Your task to perform on an android device: Search for "lg ultragear" on amazon.com, select the first entry, add it to the cart, then select checkout. Image 0: 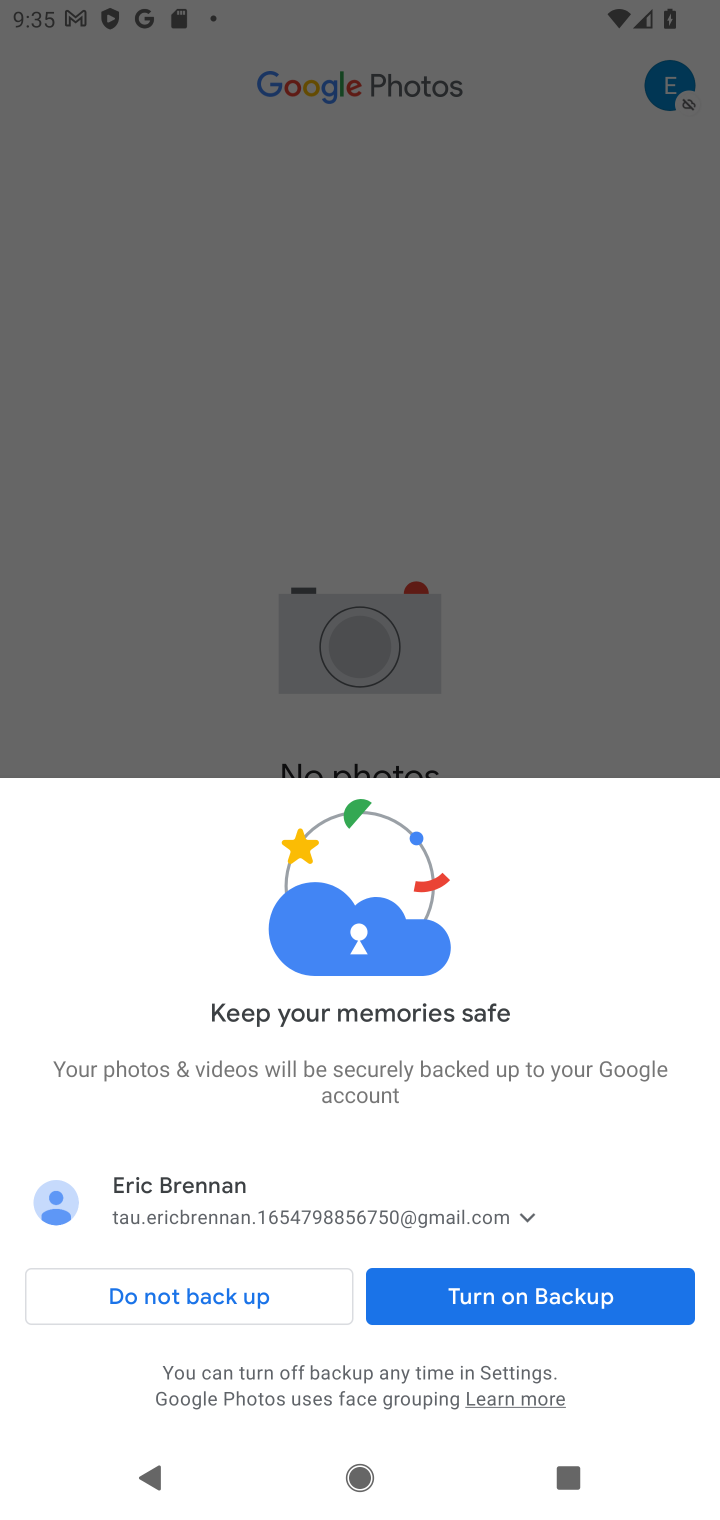
Step 0: press home button
Your task to perform on an android device: Search for "lg ultragear" on amazon.com, select the first entry, add it to the cart, then select checkout. Image 1: 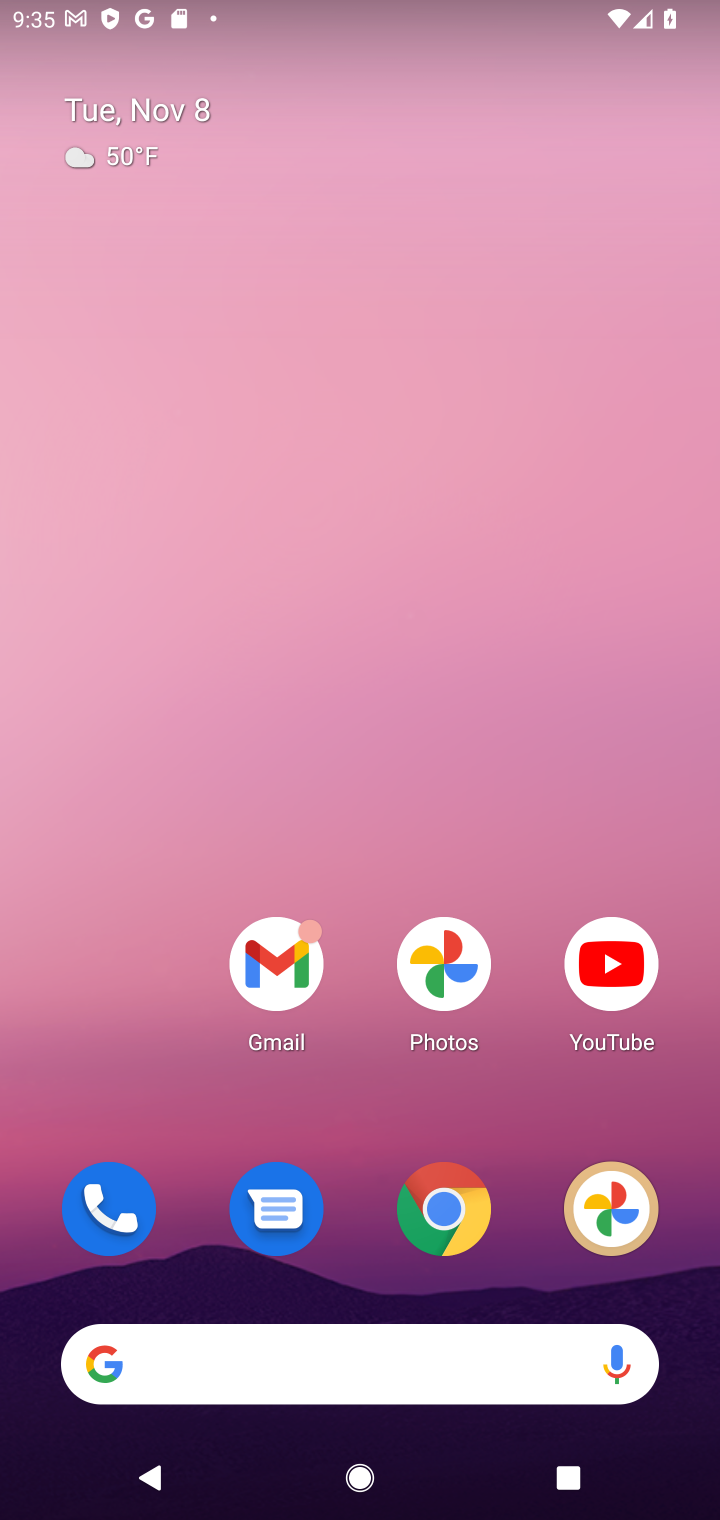
Step 1: click (441, 1198)
Your task to perform on an android device: Search for "lg ultragear" on amazon.com, select the first entry, add it to the cart, then select checkout. Image 2: 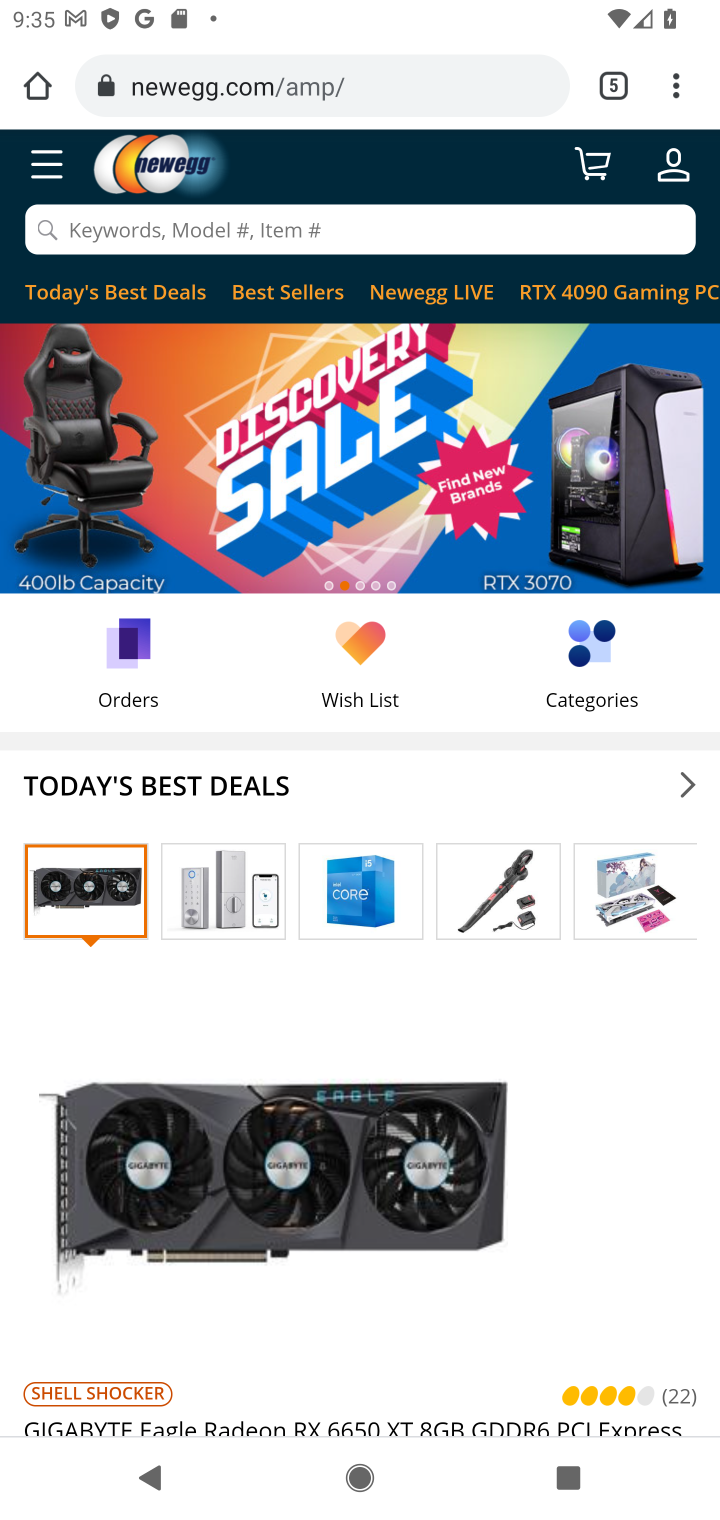
Step 2: click (614, 86)
Your task to perform on an android device: Search for "lg ultragear" on amazon.com, select the first entry, add it to the cart, then select checkout. Image 3: 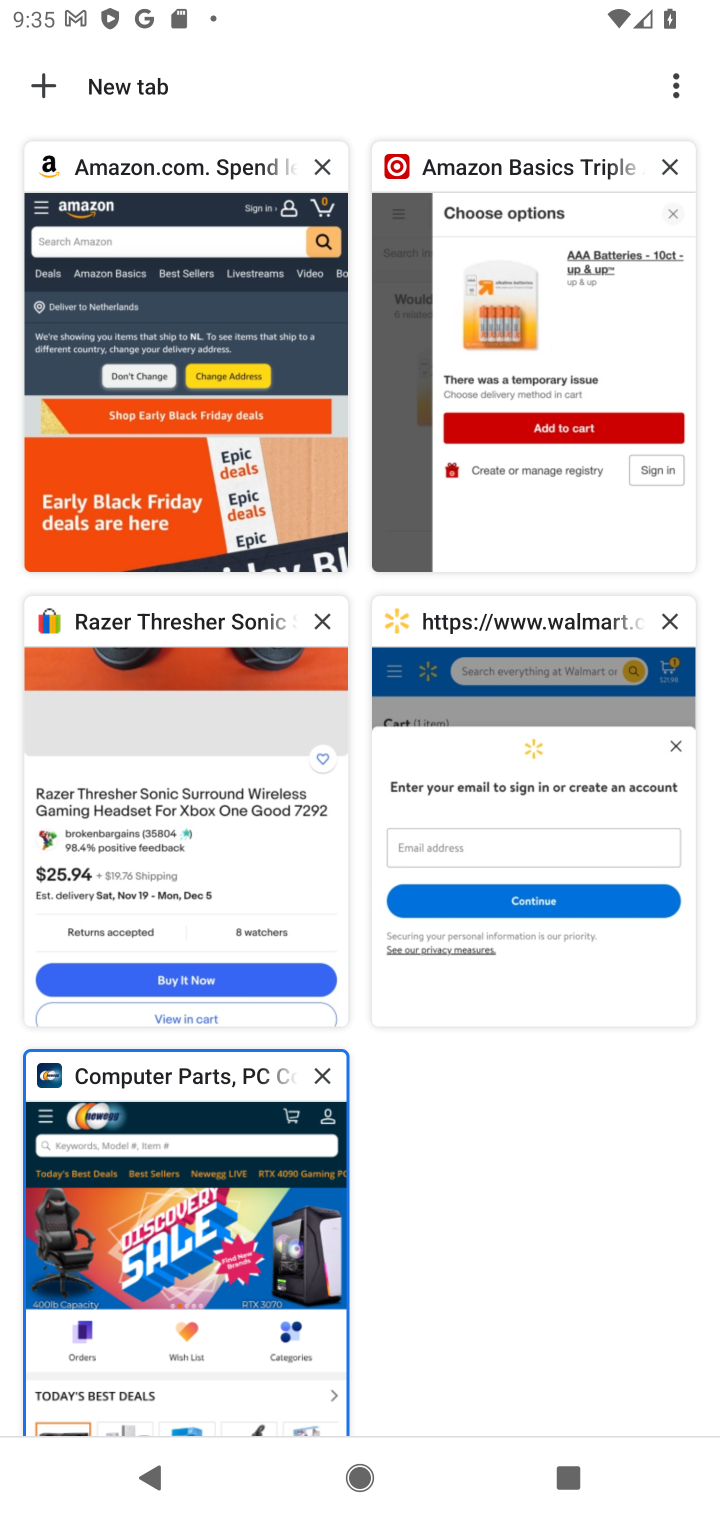
Step 3: click (109, 275)
Your task to perform on an android device: Search for "lg ultragear" on amazon.com, select the first entry, add it to the cart, then select checkout. Image 4: 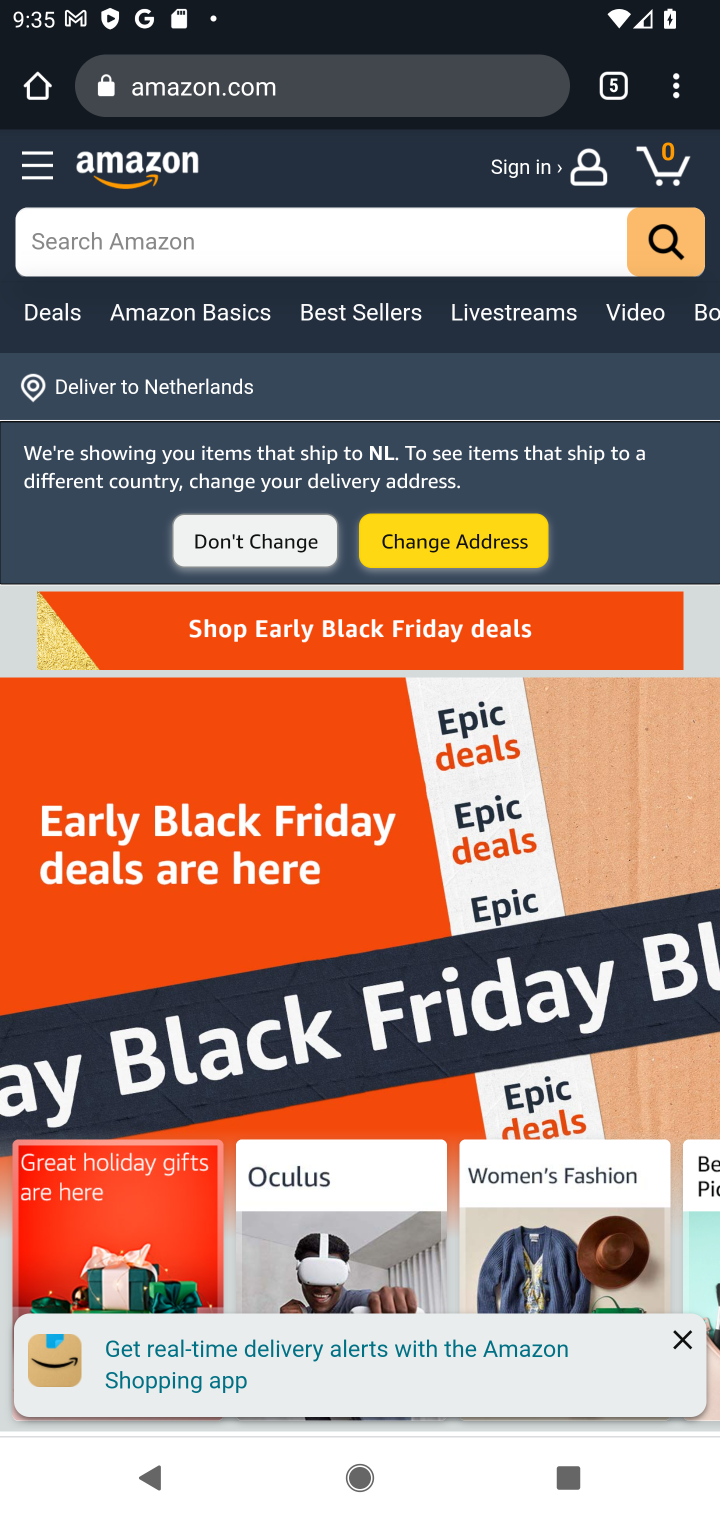
Step 4: click (125, 251)
Your task to perform on an android device: Search for "lg ultragear" on amazon.com, select the first entry, add it to the cart, then select checkout. Image 5: 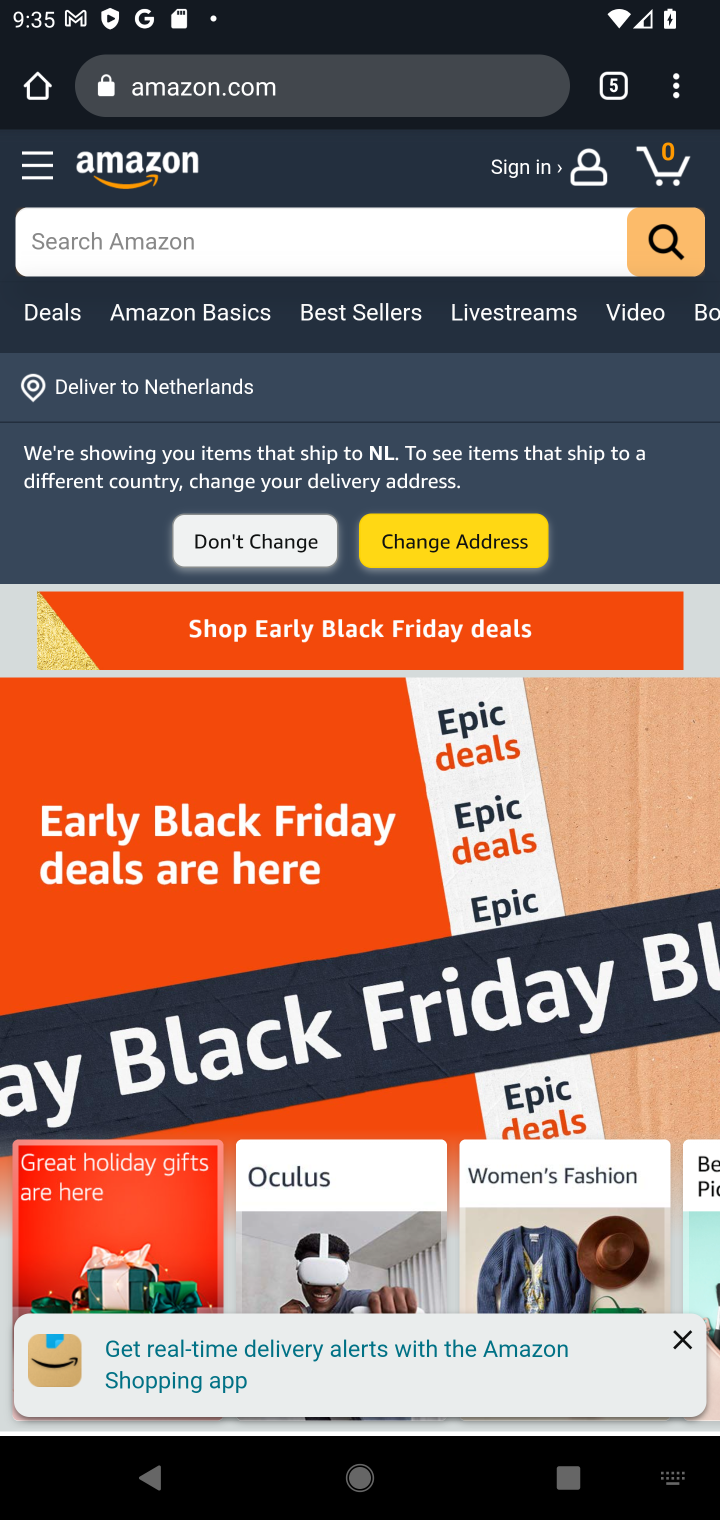
Step 5: type "lg ultragear"
Your task to perform on an android device: Search for "lg ultragear" on amazon.com, select the first entry, add it to the cart, then select checkout. Image 6: 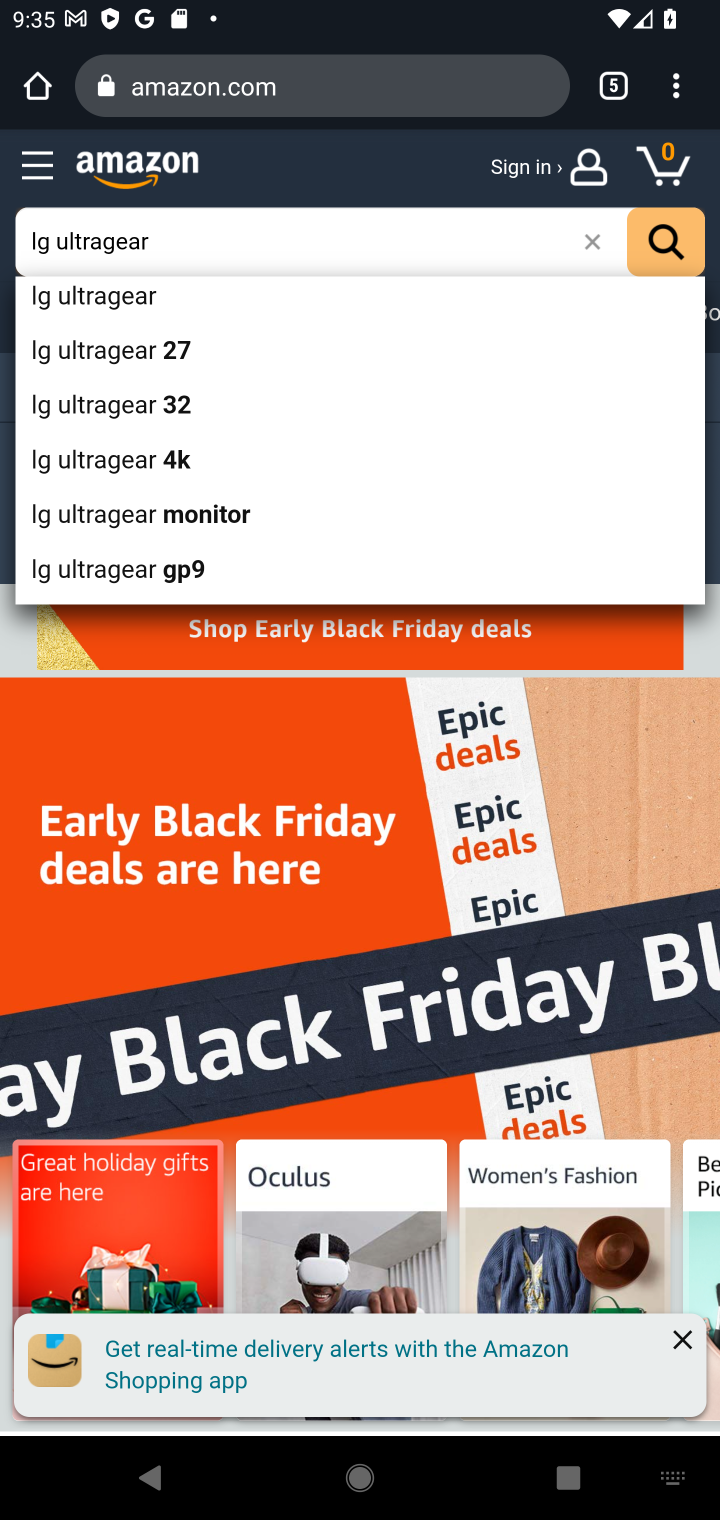
Step 6: click (75, 288)
Your task to perform on an android device: Search for "lg ultragear" on amazon.com, select the first entry, add it to the cart, then select checkout. Image 7: 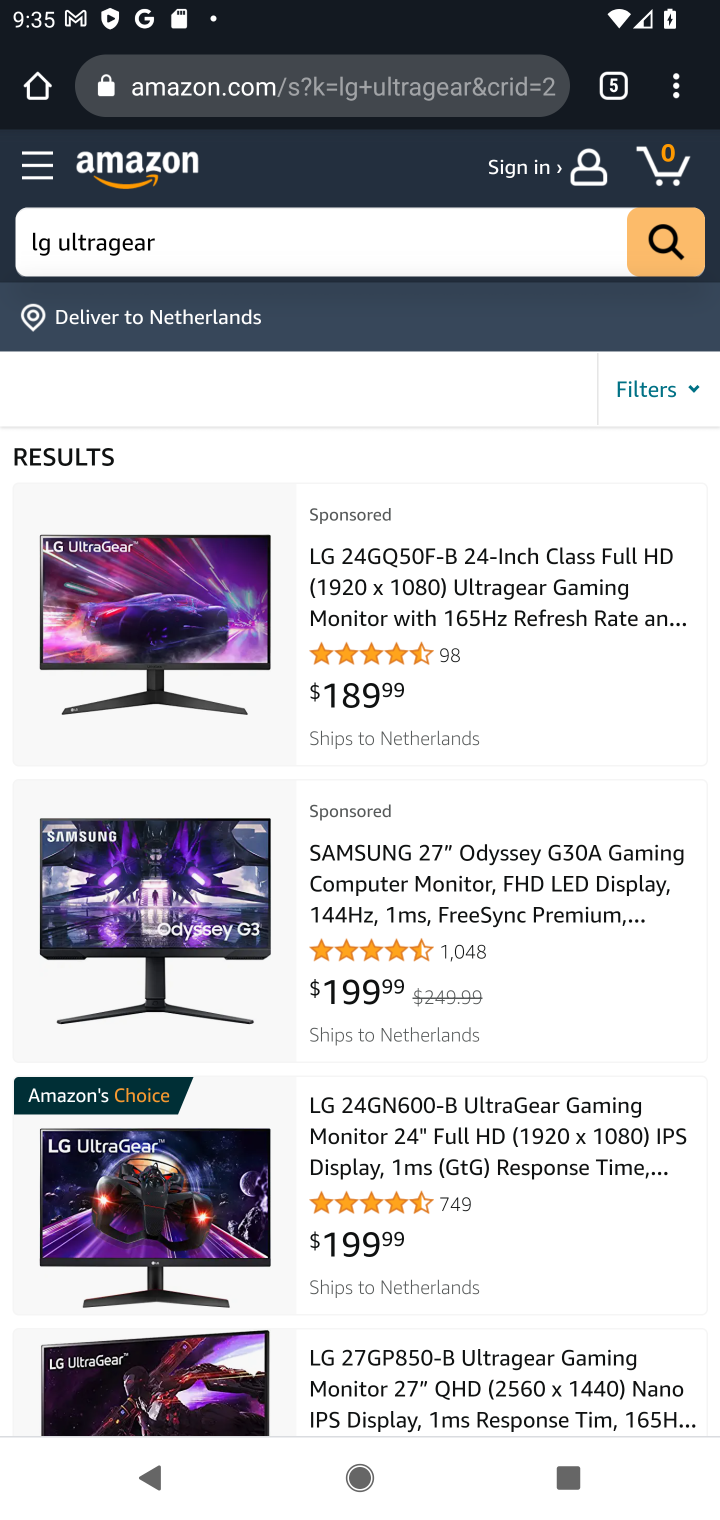
Step 7: click (469, 1132)
Your task to perform on an android device: Search for "lg ultragear" on amazon.com, select the first entry, add it to the cart, then select checkout. Image 8: 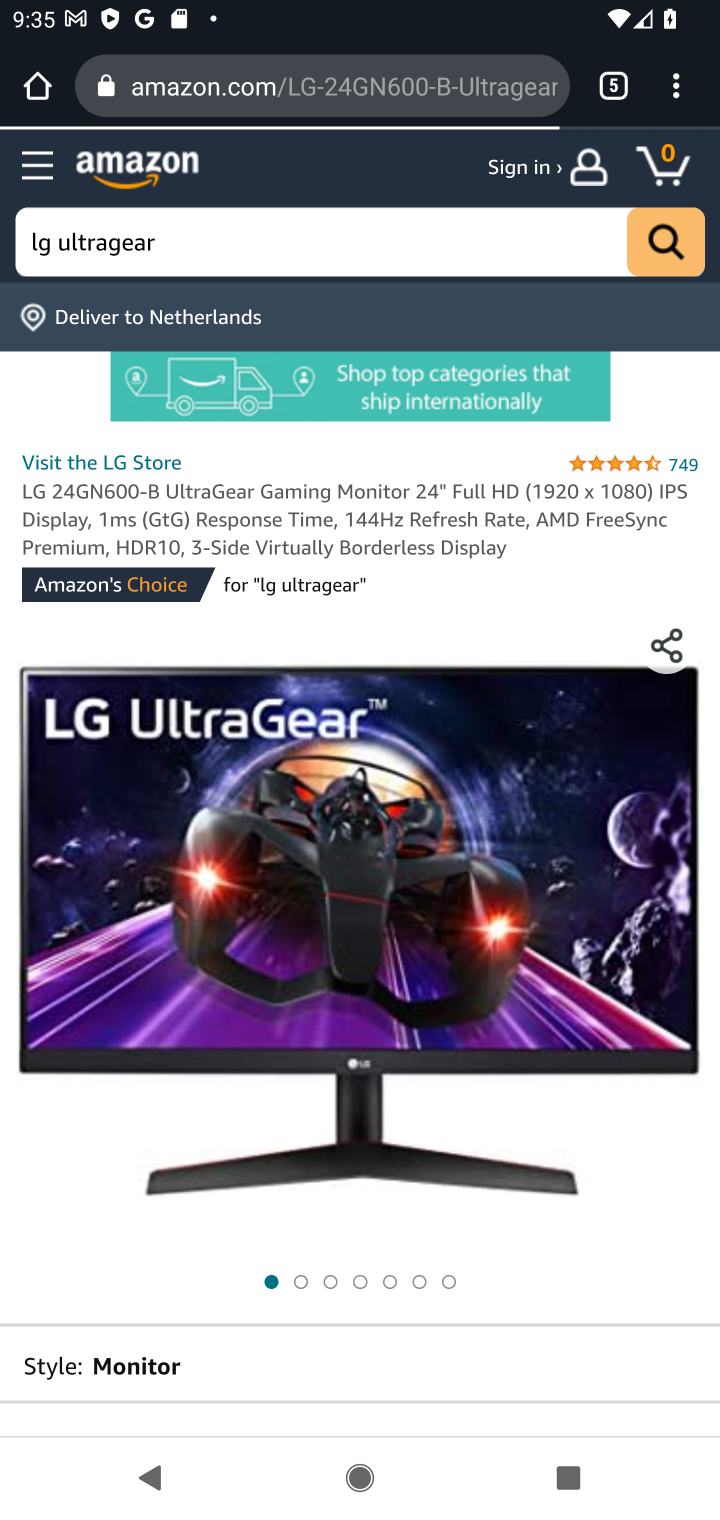
Step 8: drag from (441, 318) to (504, 131)
Your task to perform on an android device: Search for "lg ultragear" on amazon.com, select the first entry, add it to the cart, then select checkout. Image 9: 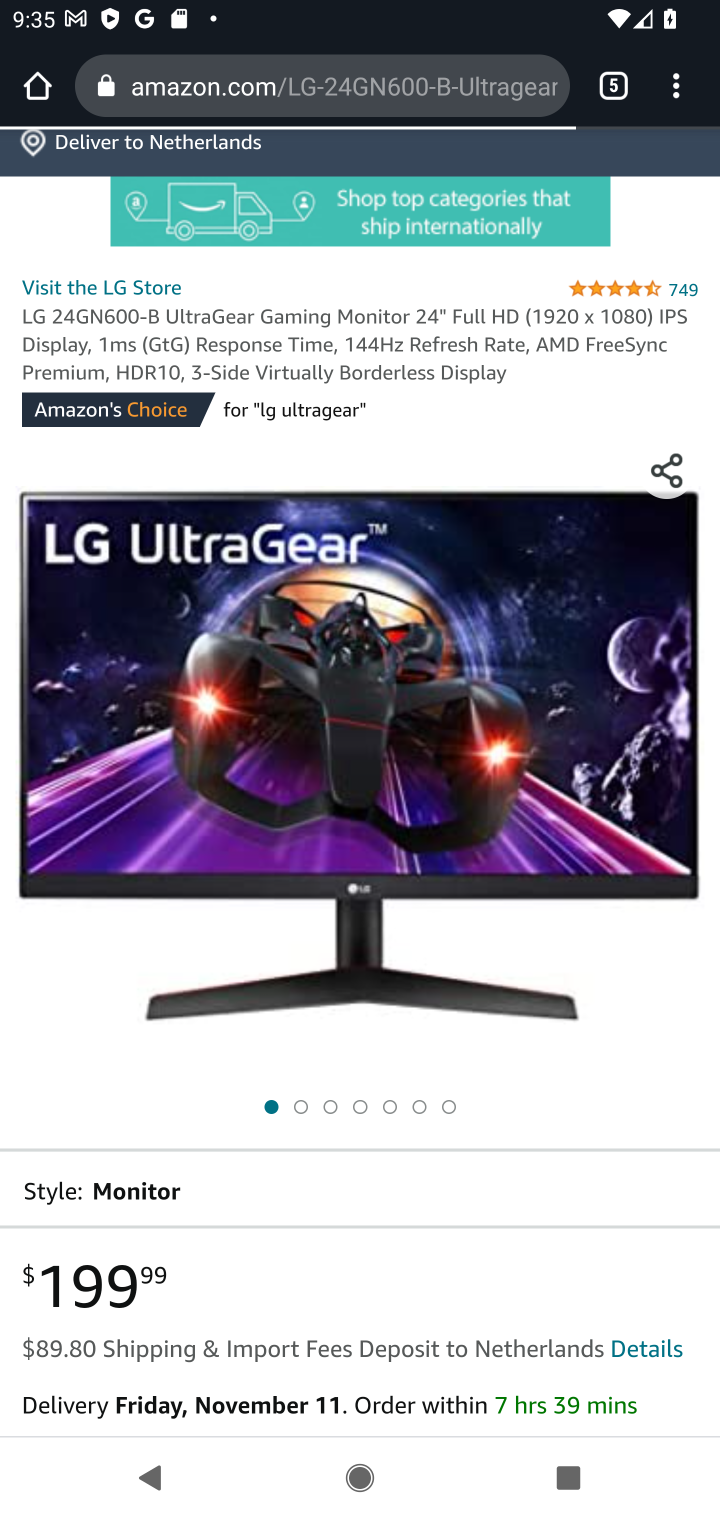
Step 9: drag from (377, 1263) to (528, 512)
Your task to perform on an android device: Search for "lg ultragear" on amazon.com, select the first entry, add it to the cart, then select checkout. Image 10: 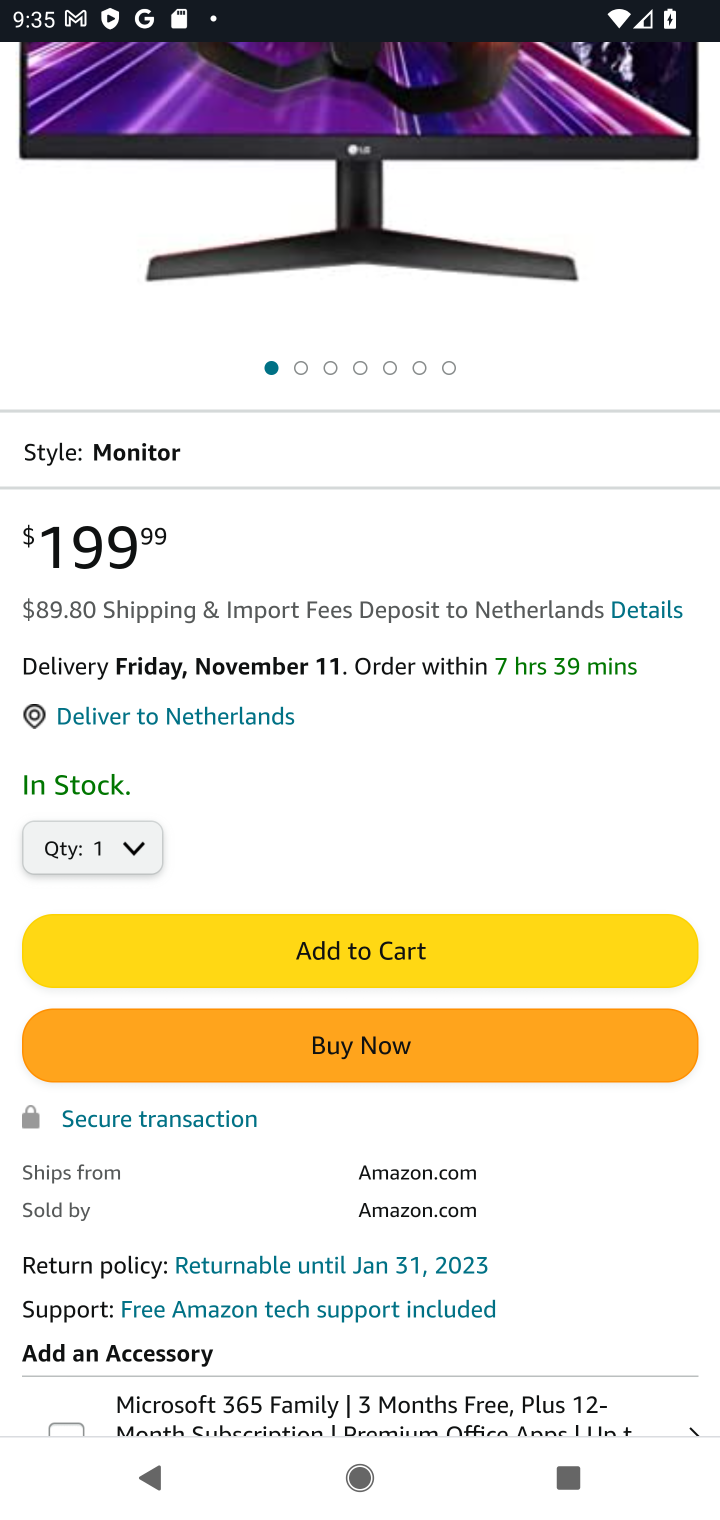
Step 10: click (407, 955)
Your task to perform on an android device: Search for "lg ultragear" on amazon.com, select the first entry, add it to the cart, then select checkout. Image 11: 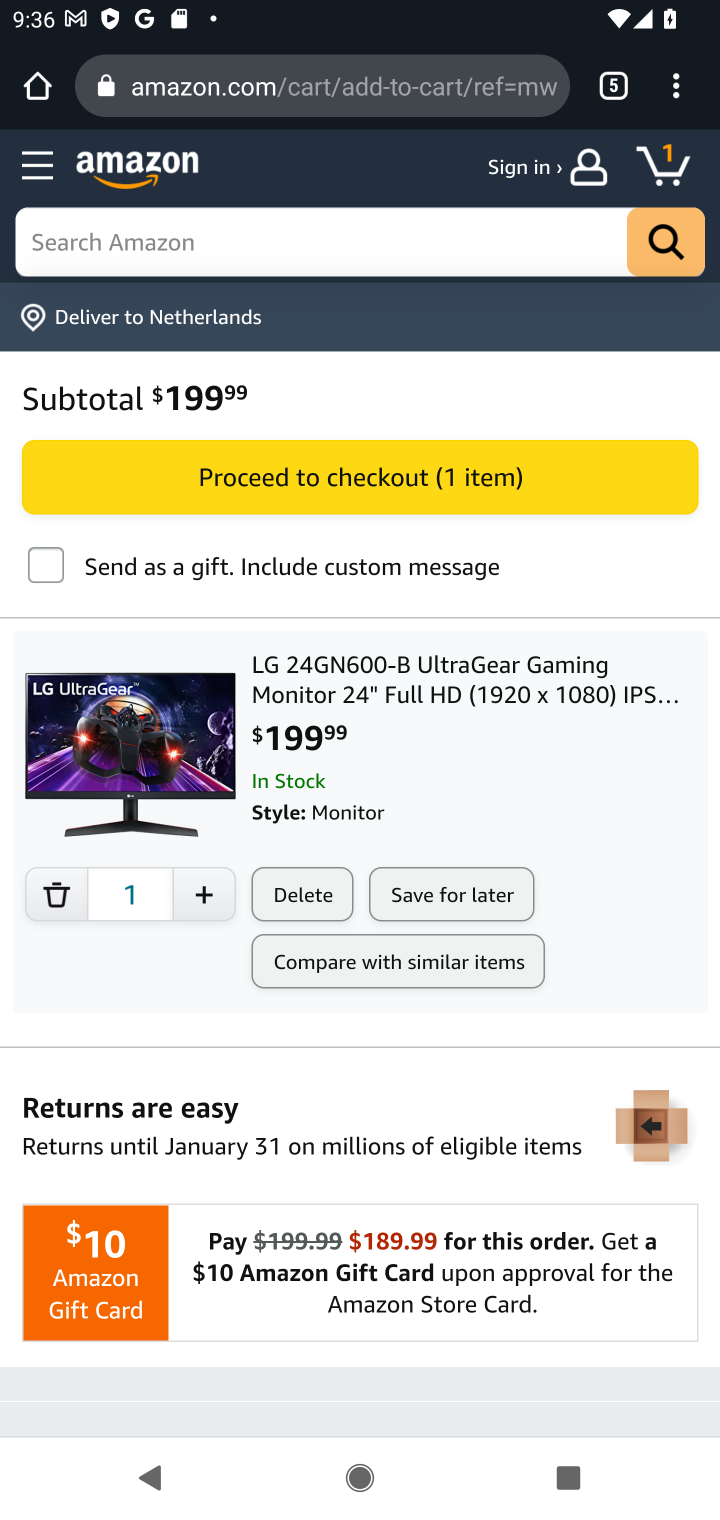
Step 11: click (481, 486)
Your task to perform on an android device: Search for "lg ultragear" on amazon.com, select the first entry, add it to the cart, then select checkout. Image 12: 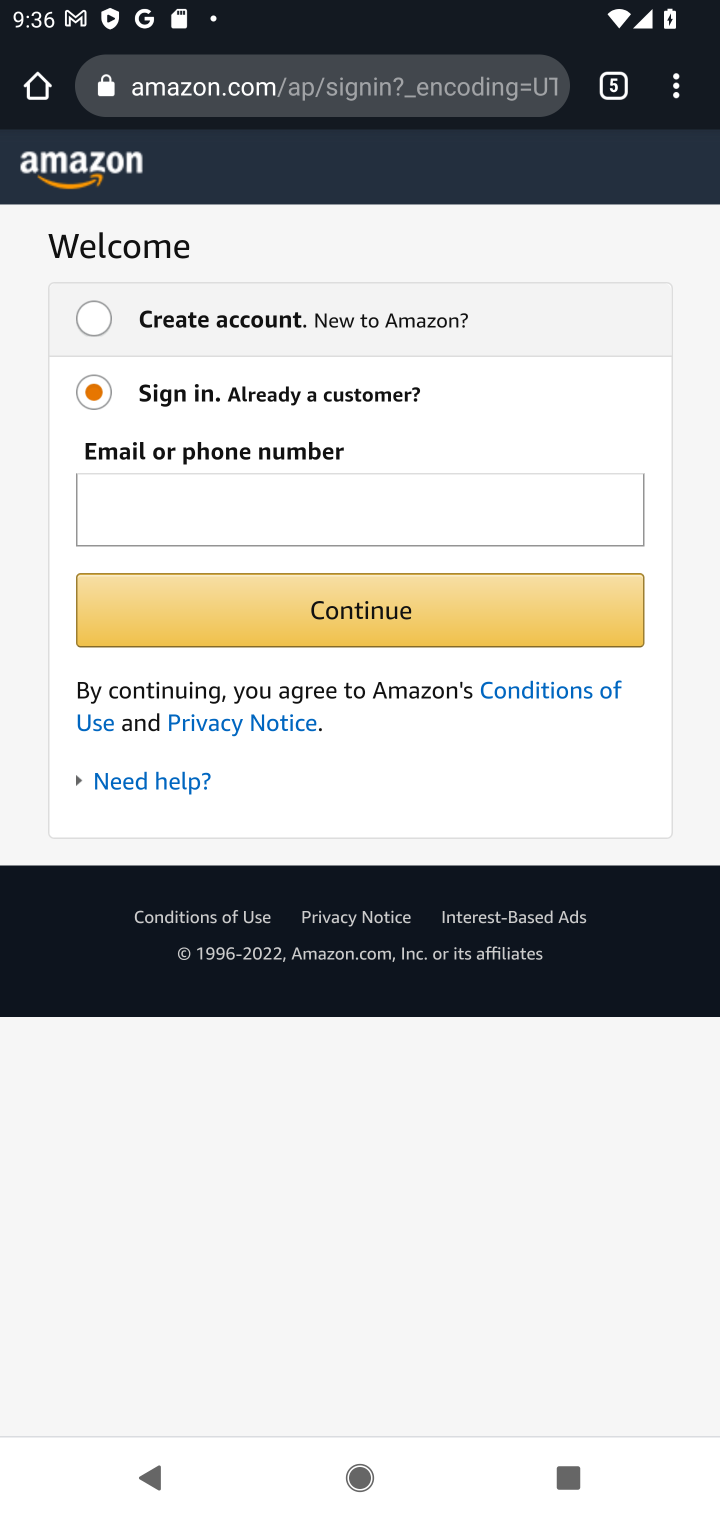
Step 12: task complete